Your task to perform on an android device: Check out the best rated books on Goodreads. Image 0: 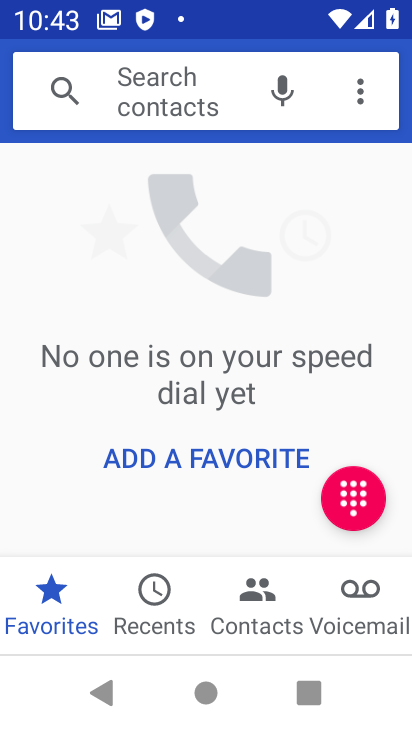
Step 0: press home button
Your task to perform on an android device: Check out the best rated books on Goodreads. Image 1: 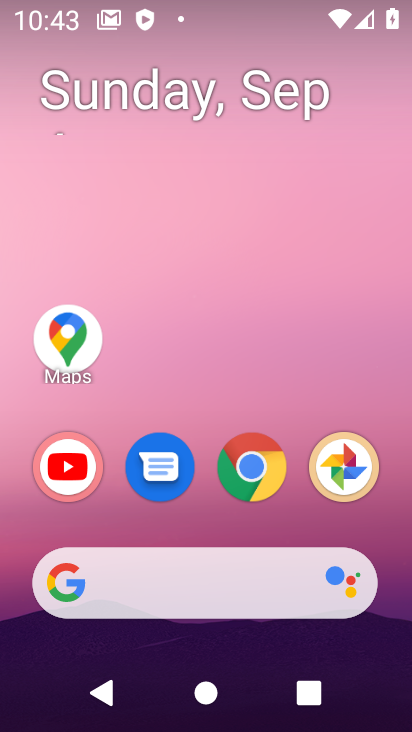
Step 1: click (257, 463)
Your task to perform on an android device: Check out the best rated books on Goodreads. Image 2: 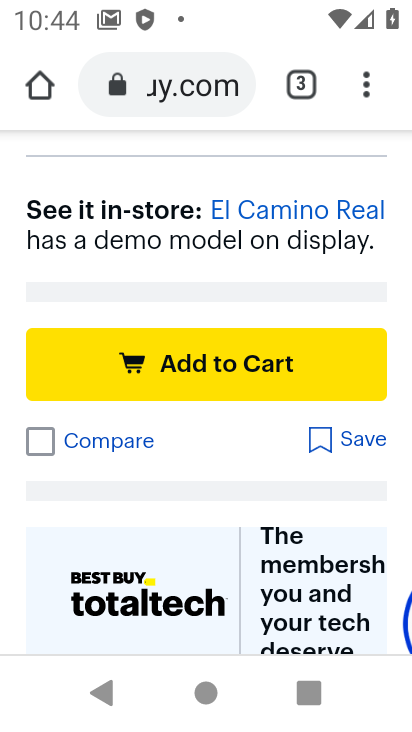
Step 2: click (160, 101)
Your task to perform on an android device: Check out the best rated books on Goodreads. Image 3: 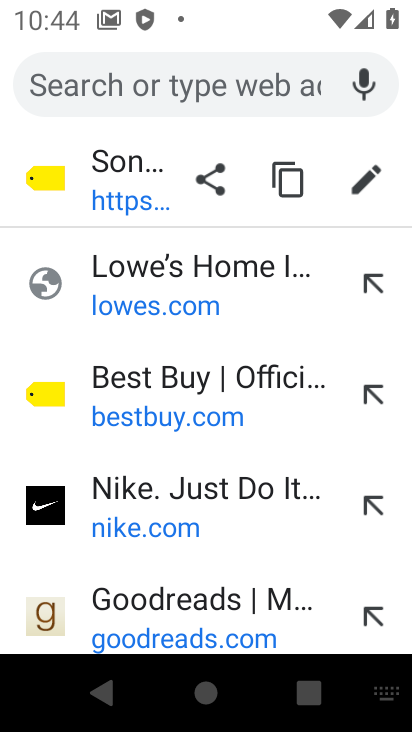
Step 3: type "goodreads"
Your task to perform on an android device: Check out the best rated books on Goodreads. Image 4: 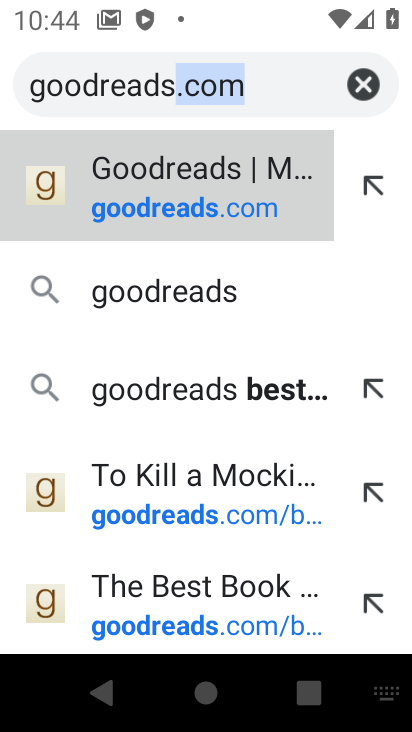
Step 4: click (145, 173)
Your task to perform on an android device: Check out the best rated books on Goodreads. Image 5: 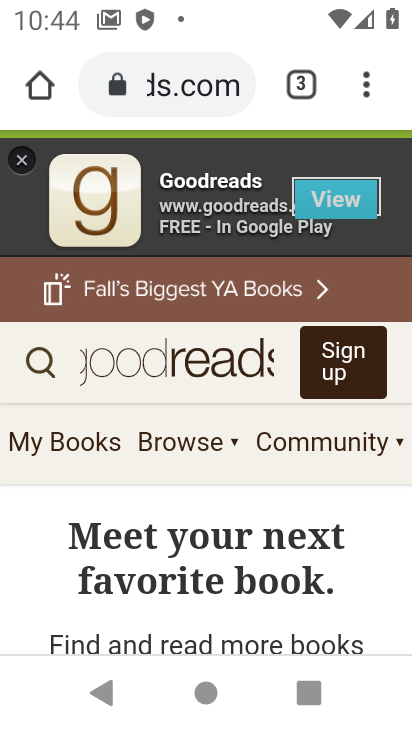
Step 5: click (30, 356)
Your task to perform on an android device: Check out the best rated books on Goodreads. Image 6: 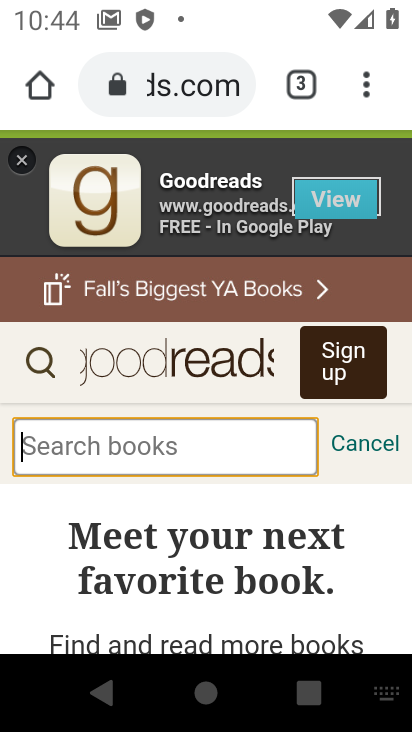
Step 6: type "best rated books"
Your task to perform on an android device: Check out the best rated books on Goodreads. Image 7: 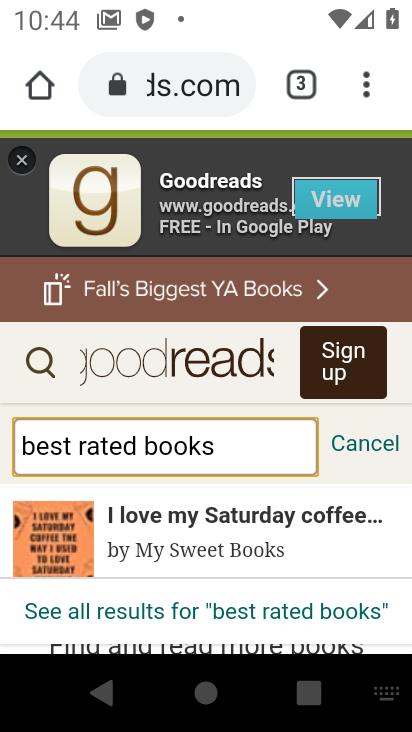
Step 7: drag from (394, 525) to (396, 324)
Your task to perform on an android device: Check out the best rated books on Goodreads. Image 8: 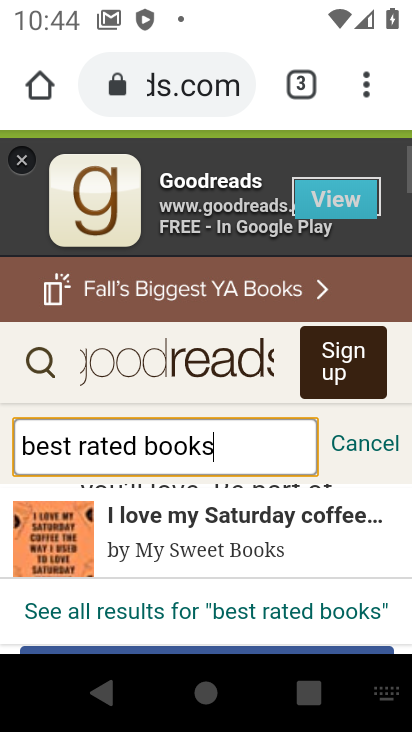
Step 8: drag from (372, 506) to (392, 351)
Your task to perform on an android device: Check out the best rated books on Goodreads. Image 9: 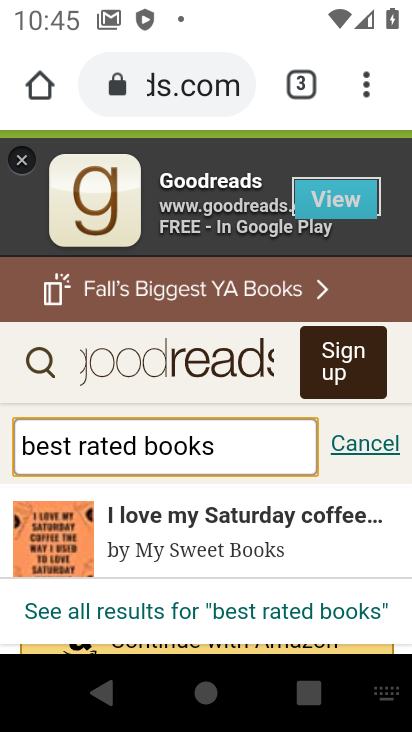
Step 9: drag from (390, 539) to (397, 373)
Your task to perform on an android device: Check out the best rated books on Goodreads. Image 10: 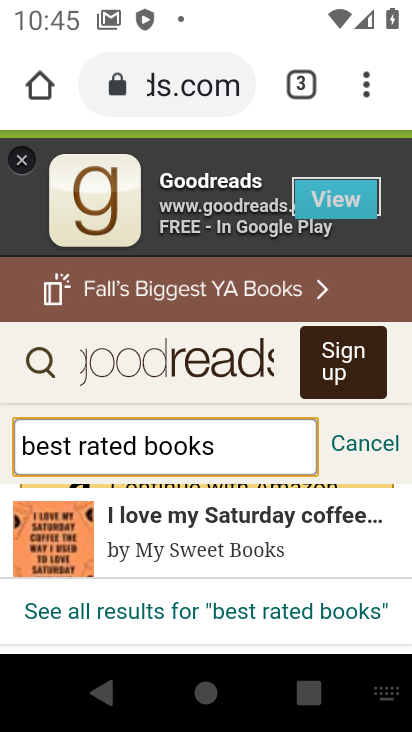
Step 10: drag from (372, 554) to (388, 271)
Your task to perform on an android device: Check out the best rated books on Goodreads. Image 11: 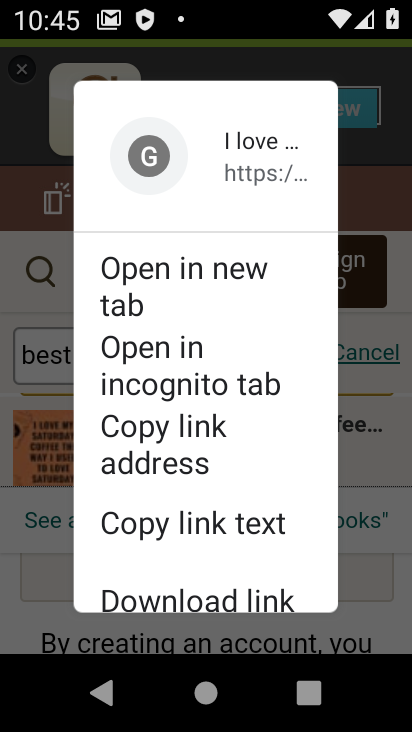
Step 11: drag from (393, 616) to (406, 274)
Your task to perform on an android device: Check out the best rated books on Goodreads. Image 12: 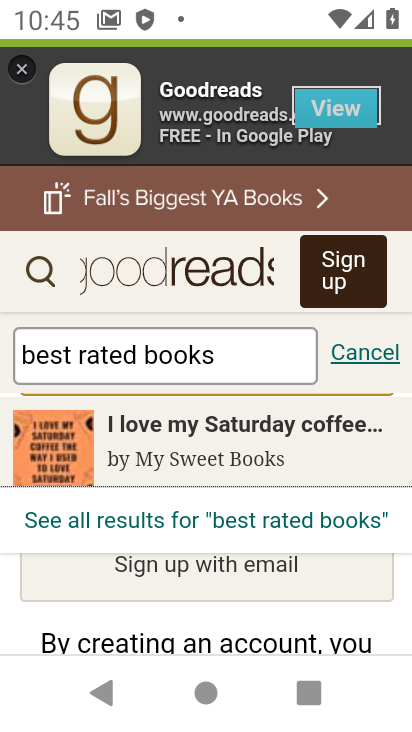
Step 12: drag from (380, 593) to (386, 212)
Your task to perform on an android device: Check out the best rated books on Goodreads. Image 13: 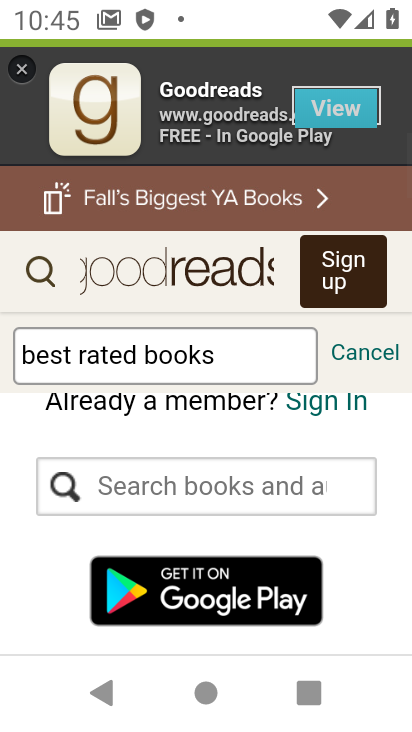
Step 13: drag from (355, 378) to (396, 693)
Your task to perform on an android device: Check out the best rated books on Goodreads. Image 14: 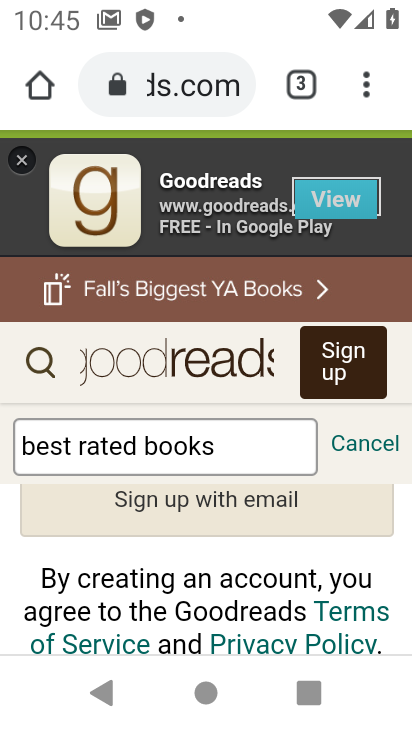
Step 14: drag from (353, 569) to (353, 232)
Your task to perform on an android device: Check out the best rated books on Goodreads. Image 15: 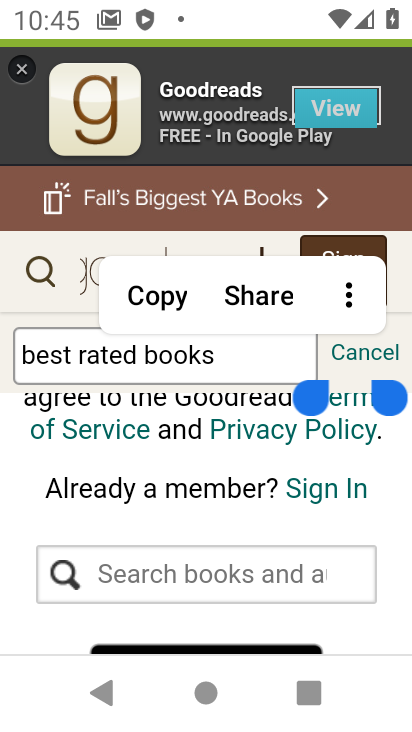
Step 15: drag from (353, 541) to (368, 297)
Your task to perform on an android device: Check out the best rated books on Goodreads. Image 16: 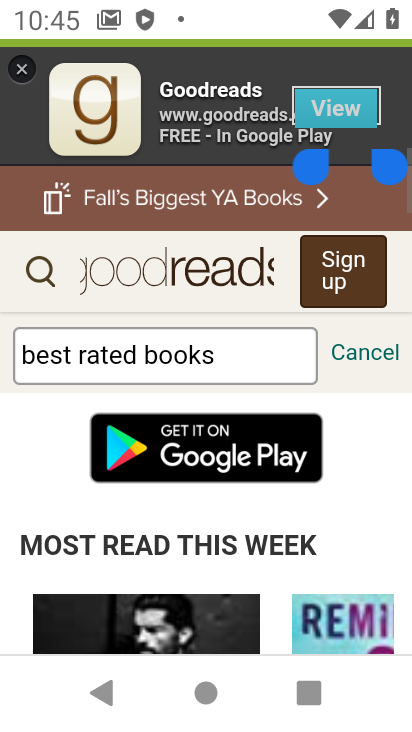
Step 16: drag from (363, 603) to (380, 267)
Your task to perform on an android device: Check out the best rated books on Goodreads. Image 17: 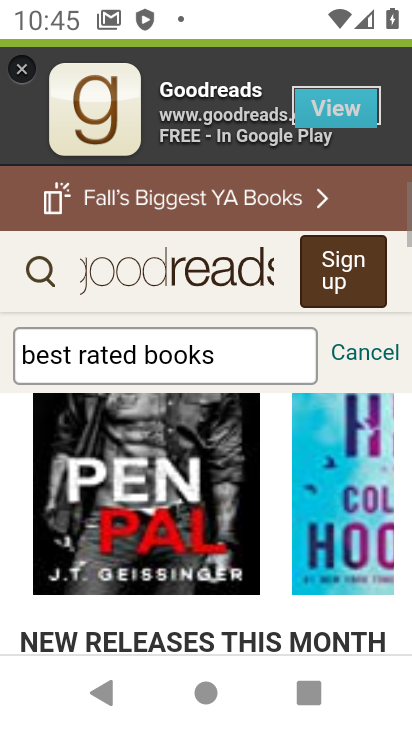
Step 17: drag from (338, 409) to (354, 327)
Your task to perform on an android device: Check out the best rated books on Goodreads. Image 18: 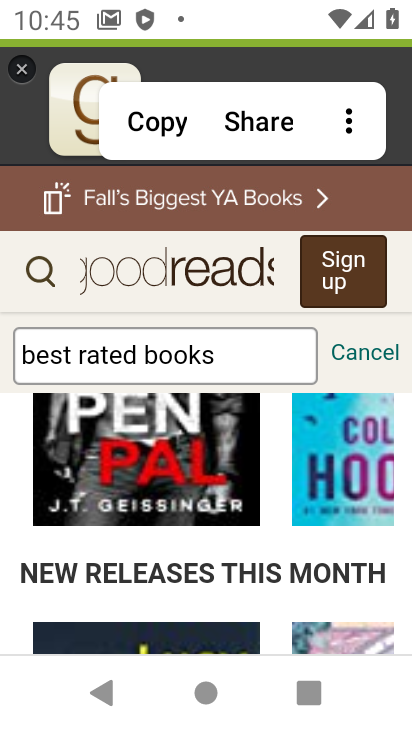
Step 18: drag from (340, 620) to (388, 303)
Your task to perform on an android device: Check out the best rated books on Goodreads. Image 19: 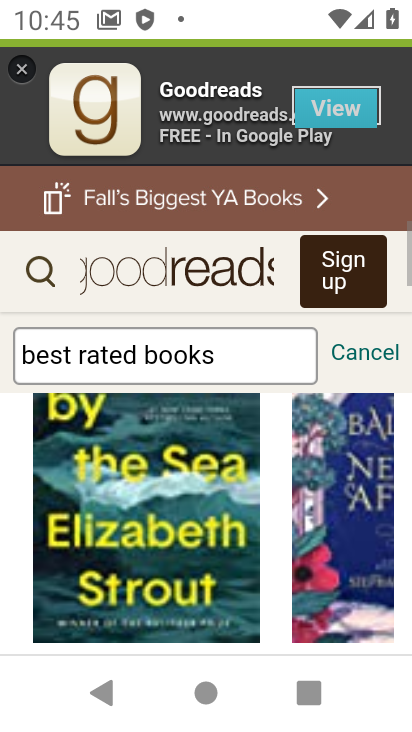
Step 19: drag from (346, 549) to (371, 384)
Your task to perform on an android device: Check out the best rated books on Goodreads. Image 20: 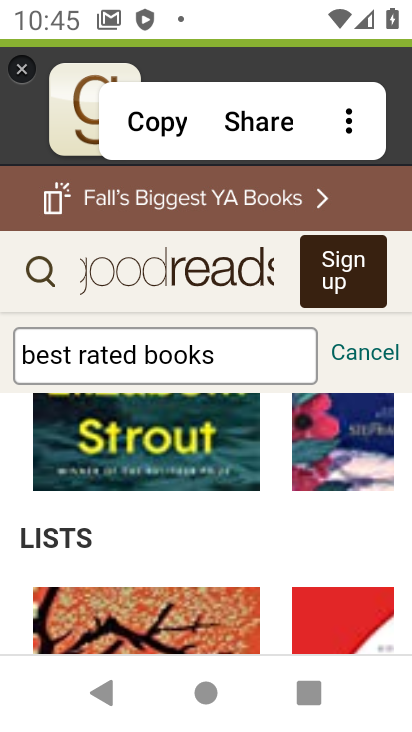
Step 20: click (351, 475)
Your task to perform on an android device: Check out the best rated books on Goodreads. Image 21: 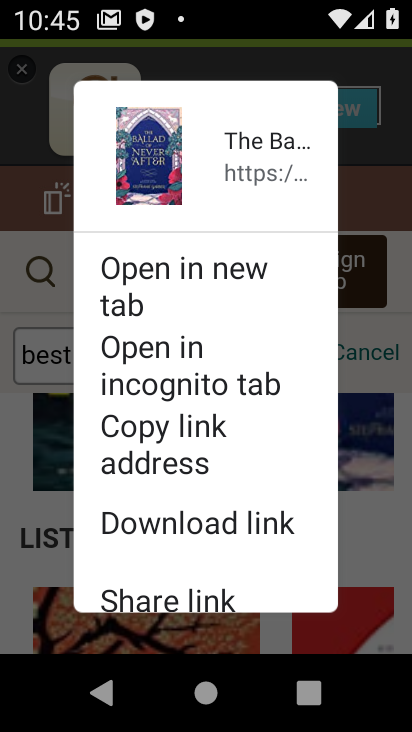
Step 21: task complete